Your task to perform on an android device: Go to privacy settings Image 0: 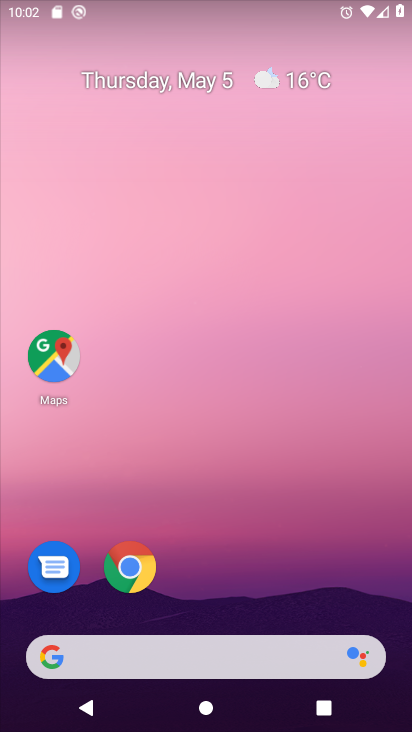
Step 0: drag from (275, 517) to (270, 10)
Your task to perform on an android device: Go to privacy settings Image 1: 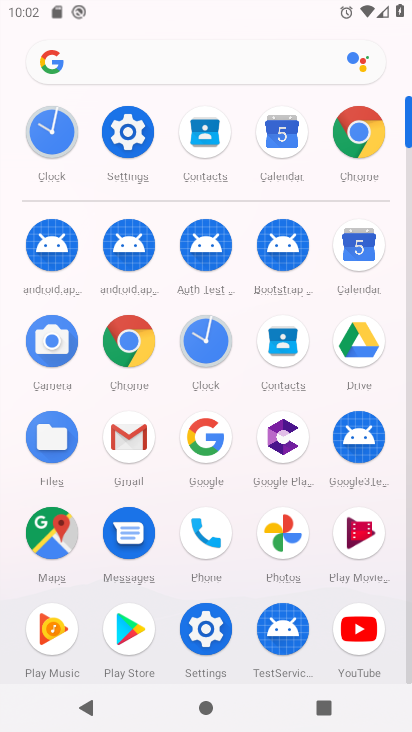
Step 1: click (142, 132)
Your task to perform on an android device: Go to privacy settings Image 2: 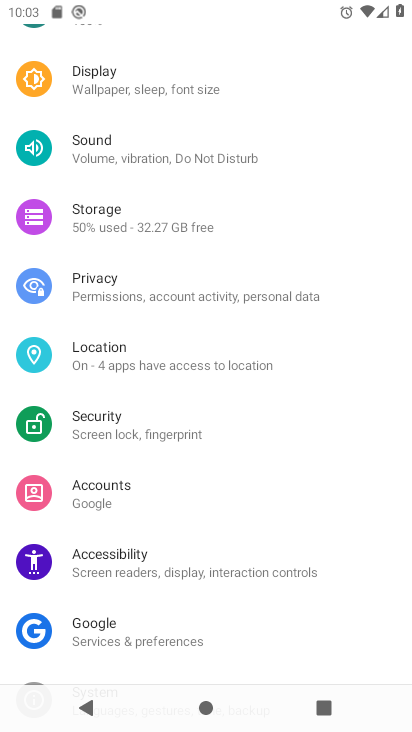
Step 2: click (248, 282)
Your task to perform on an android device: Go to privacy settings Image 3: 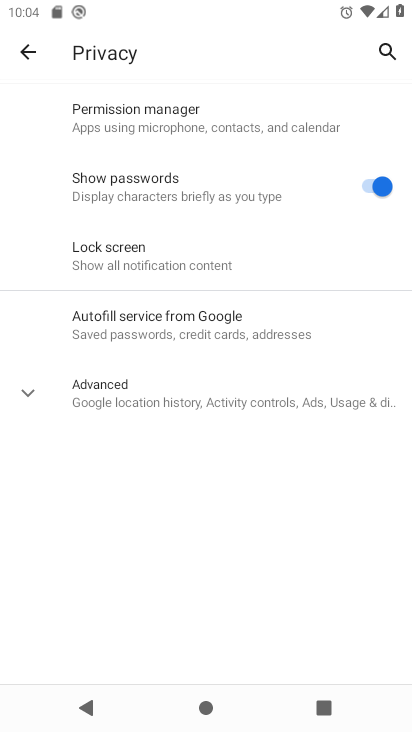
Step 3: task complete